Your task to perform on an android device: Is it going to rain tomorrow? Image 0: 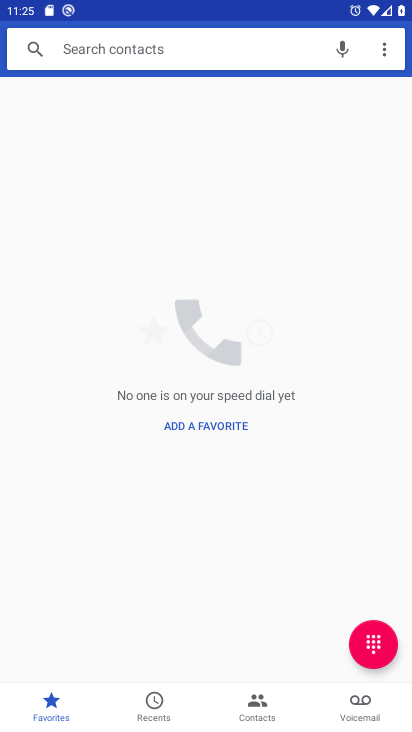
Step 0: press home button
Your task to perform on an android device: Is it going to rain tomorrow? Image 1: 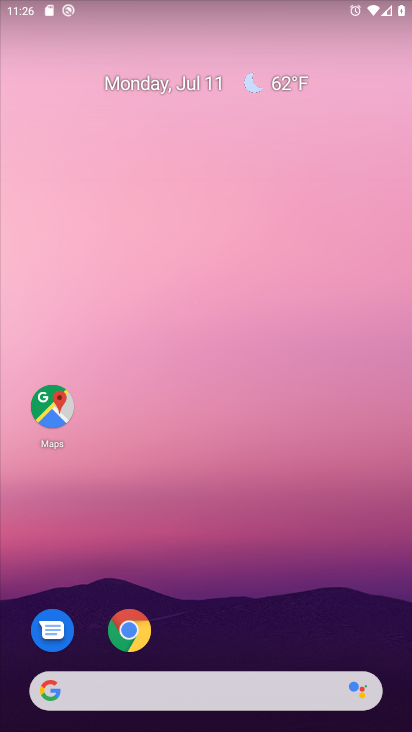
Step 1: drag from (238, 605) to (212, 21)
Your task to perform on an android device: Is it going to rain tomorrow? Image 2: 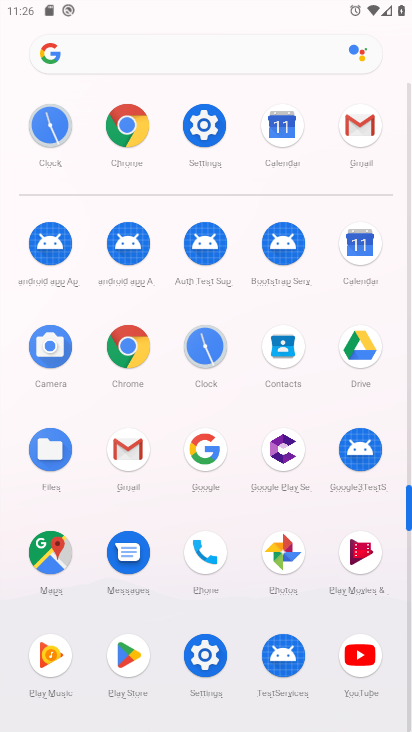
Step 2: click (208, 48)
Your task to perform on an android device: Is it going to rain tomorrow? Image 3: 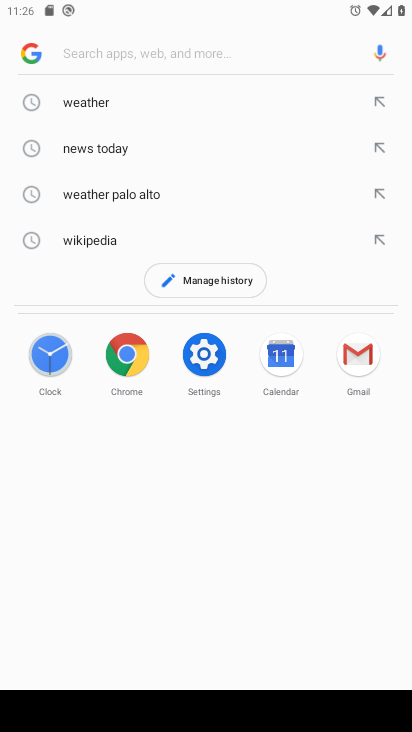
Step 3: click (97, 103)
Your task to perform on an android device: Is it going to rain tomorrow? Image 4: 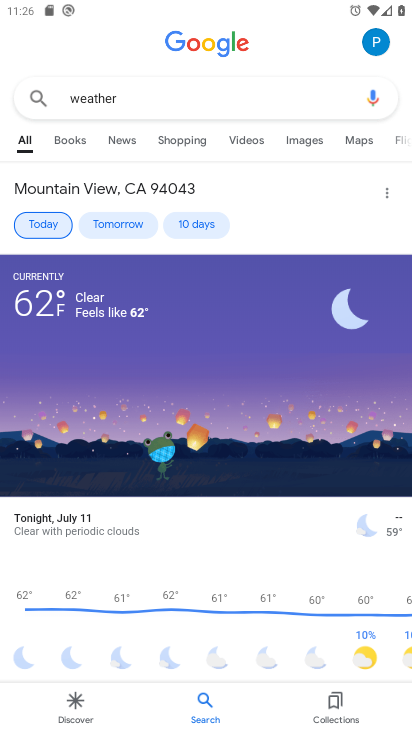
Step 4: click (42, 220)
Your task to perform on an android device: Is it going to rain tomorrow? Image 5: 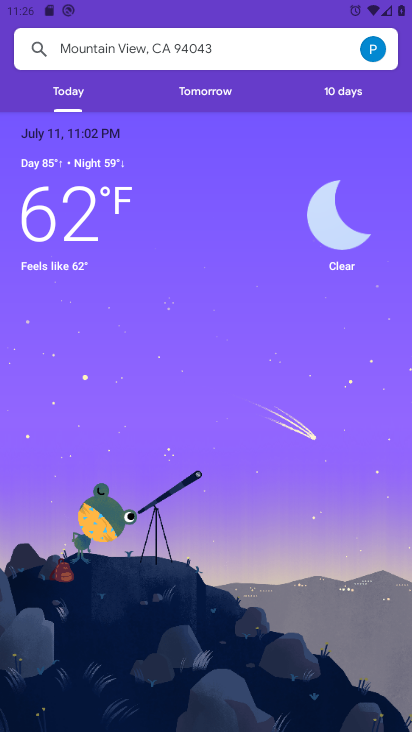
Step 5: click (204, 87)
Your task to perform on an android device: Is it going to rain tomorrow? Image 6: 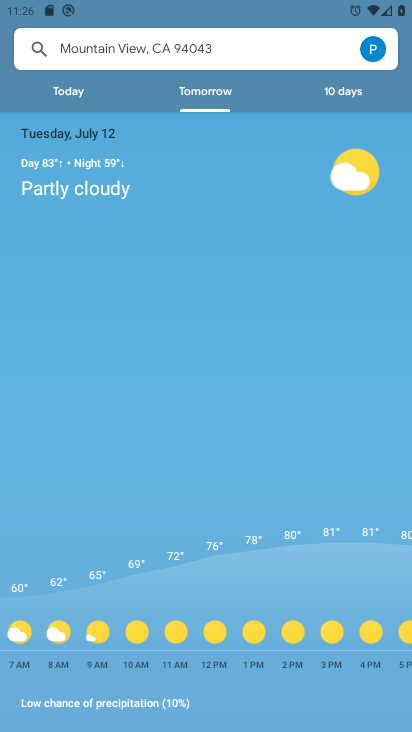
Step 6: task complete